Your task to perform on an android device: turn off wifi Image 0: 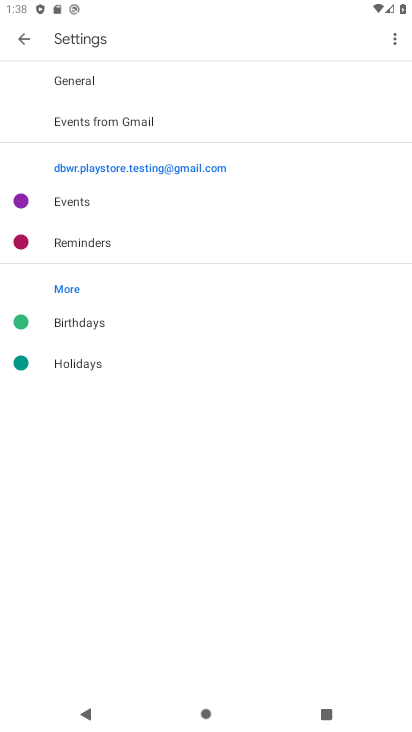
Step 0: press home button
Your task to perform on an android device: turn off wifi Image 1: 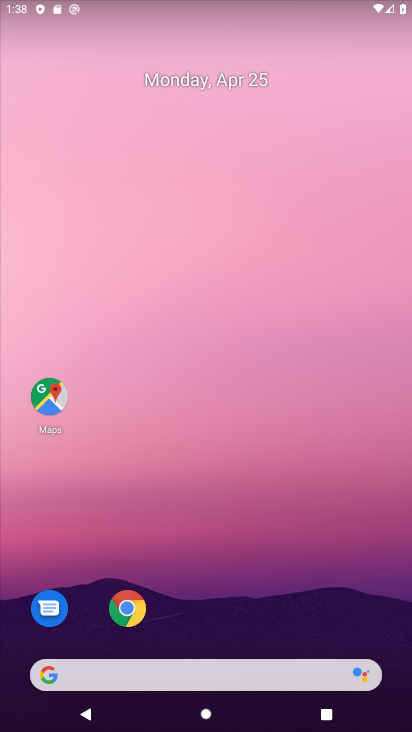
Step 1: drag from (356, 590) to (370, 104)
Your task to perform on an android device: turn off wifi Image 2: 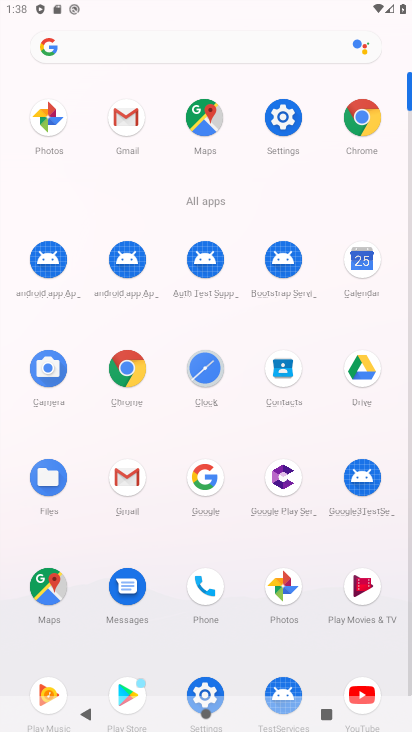
Step 2: click (286, 128)
Your task to perform on an android device: turn off wifi Image 3: 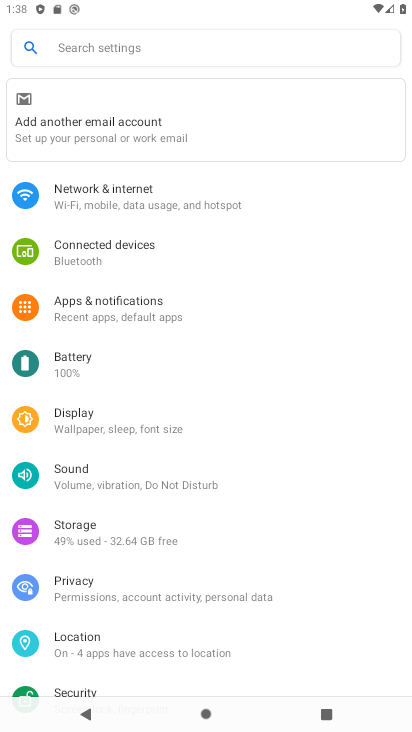
Step 3: drag from (344, 553) to (346, 347)
Your task to perform on an android device: turn off wifi Image 4: 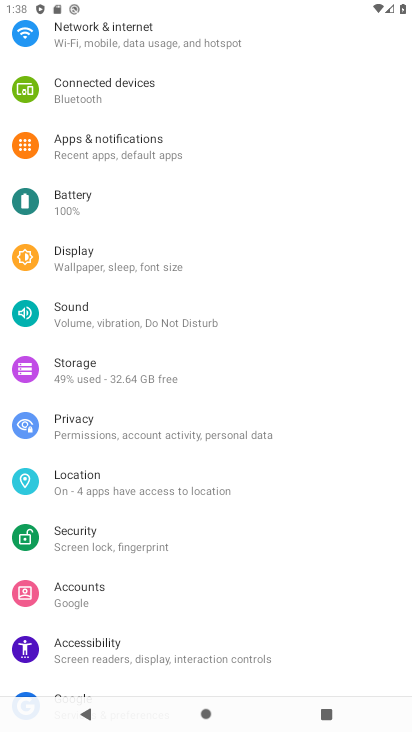
Step 4: drag from (335, 567) to (342, 376)
Your task to perform on an android device: turn off wifi Image 5: 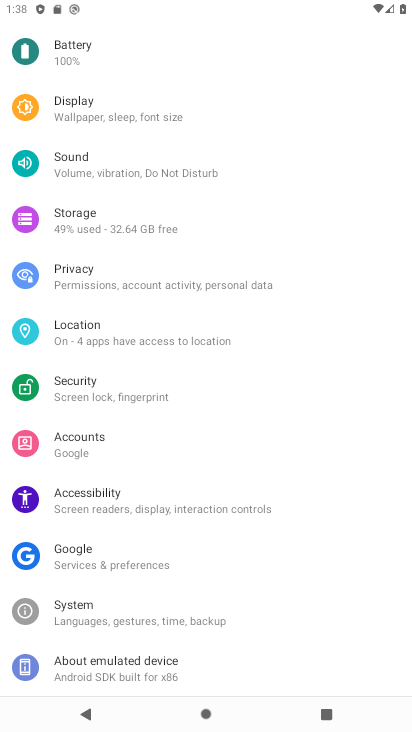
Step 5: drag from (335, 622) to (357, 390)
Your task to perform on an android device: turn off wifi Image 6: 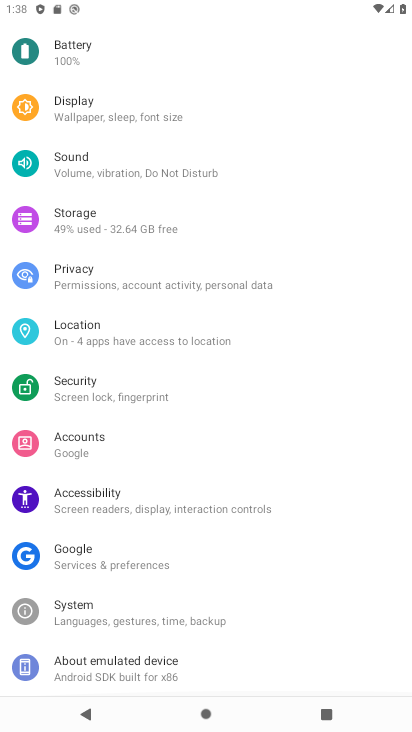
Step 6: drag from (348, 269) to (340, 383)
Your task to perform on an android device: turn off wifi Image 7: 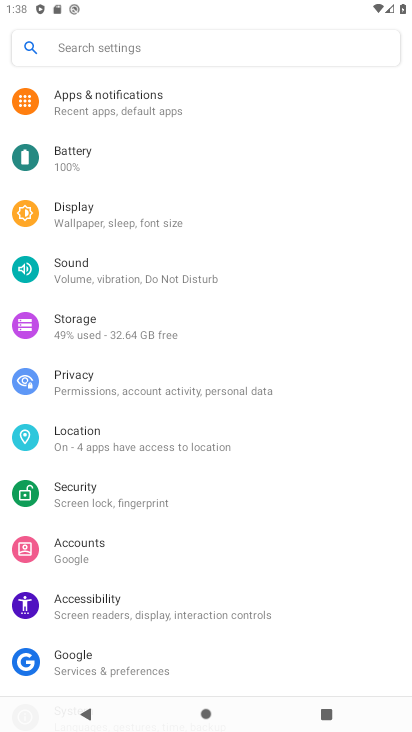
Step 7: drag from (354, 254) to (349, 405)
Your task to perform on an android device: turn off wifi Image 8: 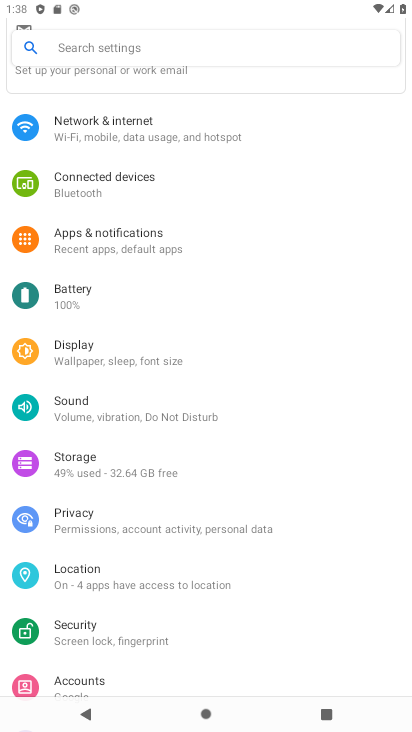
Step 8: drag from (348, 257) to (336, 386)
Your task to perform on an android device: turn off wifi Image 9: 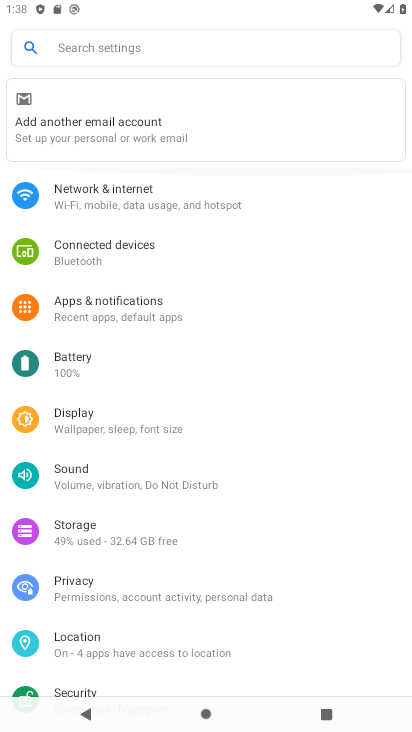
Step 9: drag from (332, 239) to (366, 391)
Your task to perform on an android device: turn off wifi Image 10: 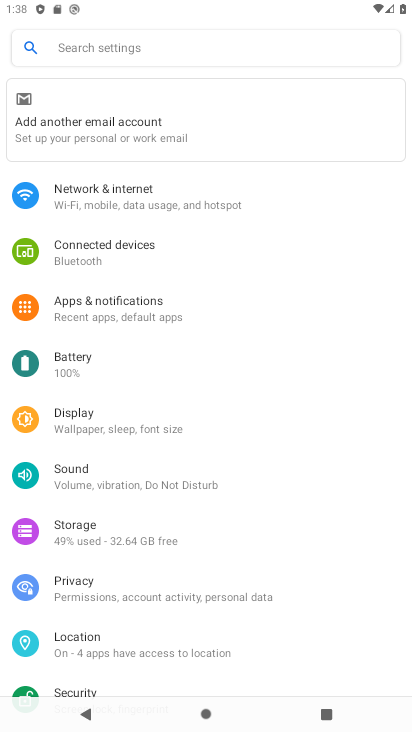
Step 10: click (212, 203)
Your task to perform on an android device: turn off wifi Image 11: 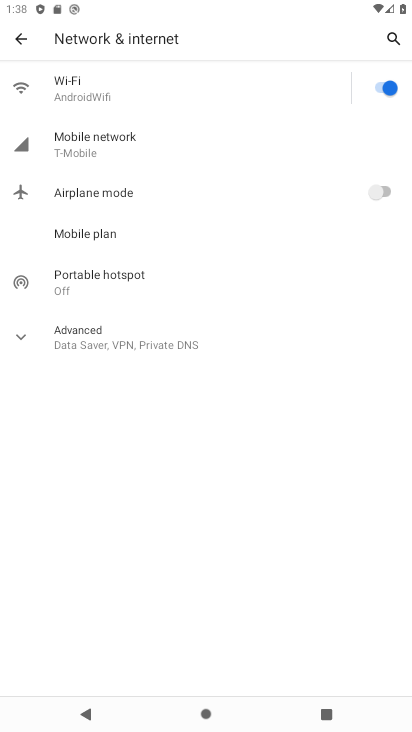
Step 11: click (385, 96)
Your task to perform on an android device: turn off wifi Image 12: 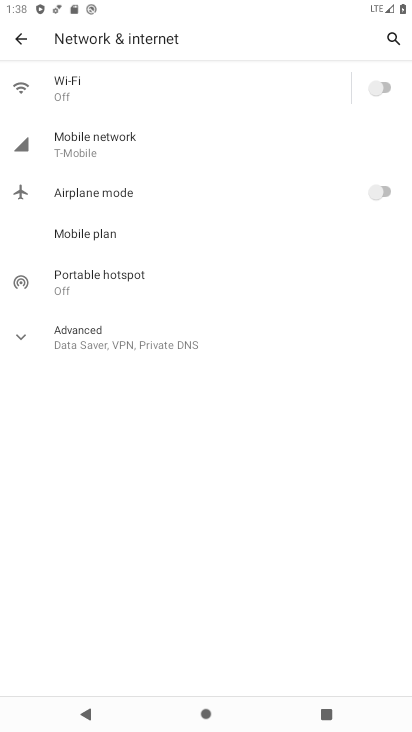
Step 12: task complete